Your task to perform on an android device: Open calendar and show me the third week of next month Image 0: 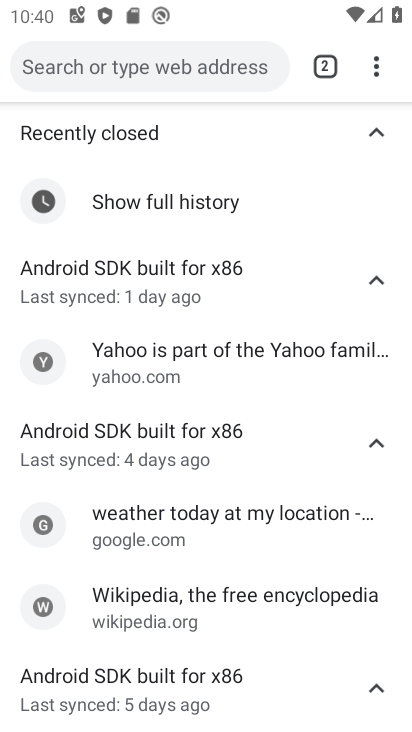
Step 0: press home button
Your task to perform on an android device: Open calendar and show me the third week of next month Image 1: 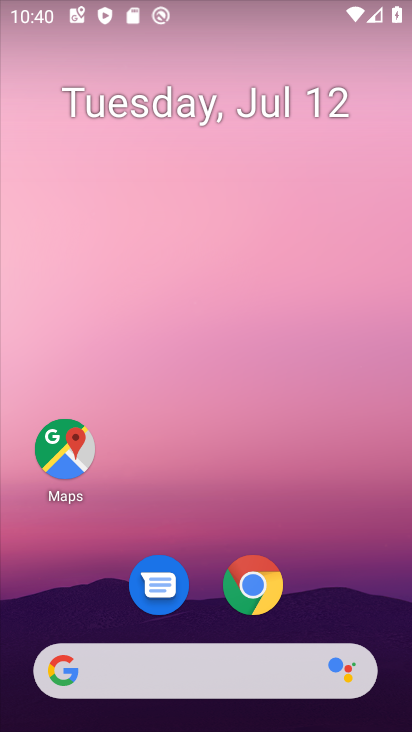
Step 1: drag from (311, 579) to (337, 0)
Your task to perform on an android device: Open calendar and show me the third week of next month Image 2: 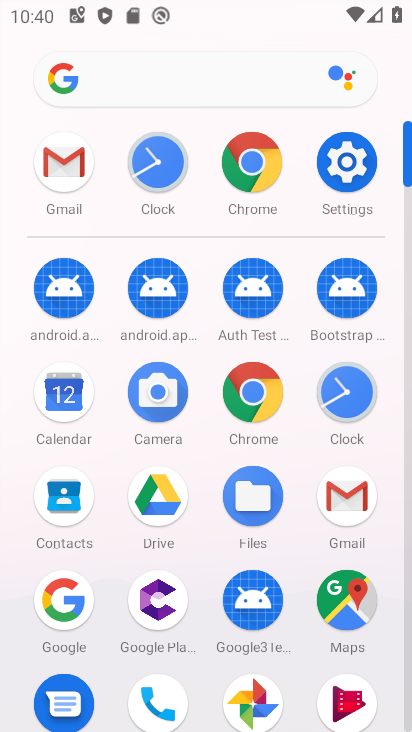
Step 2: click (67, 396)
Your task to perform on an android device: Open calendar and show me the third week of next month Image 3: 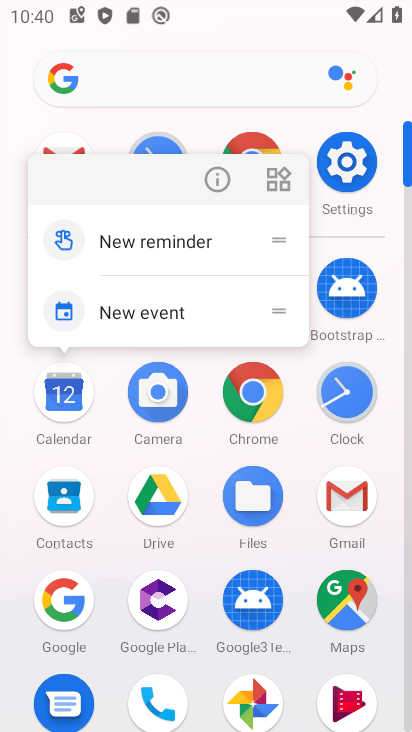
Step 3: click (67, 391)
Your task to perform on an android device: Open calendar and show me the third week of next month Image 4: 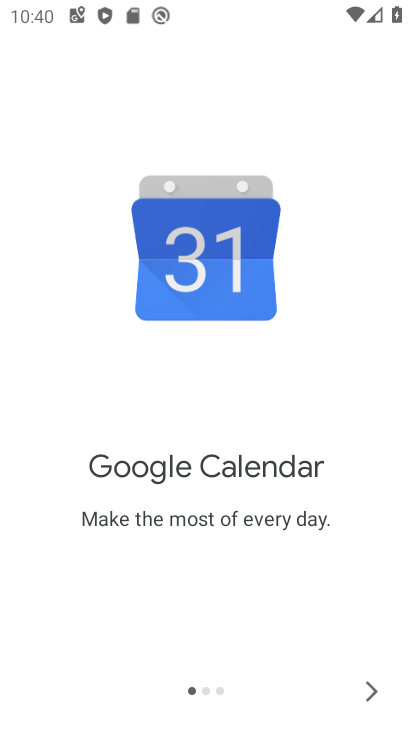
Step 4: click (370, 687)
Your task to perform on an android device: Open calendar and show me the third week of next month Image 5: 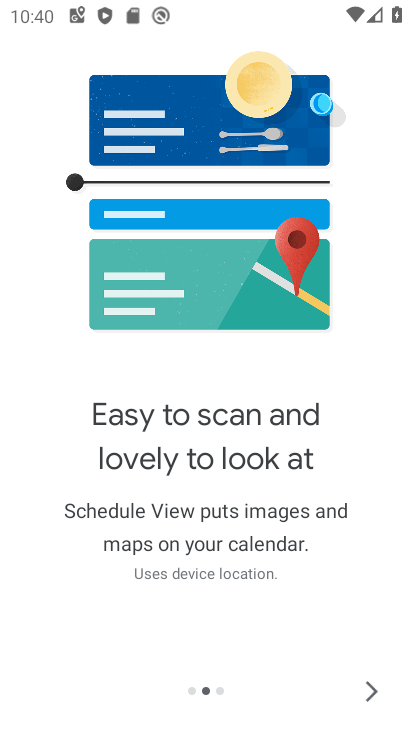
Step 5: click (370, 687)
Your task to perform on an android device: Open calendar and show me the third week of next month Image 6: 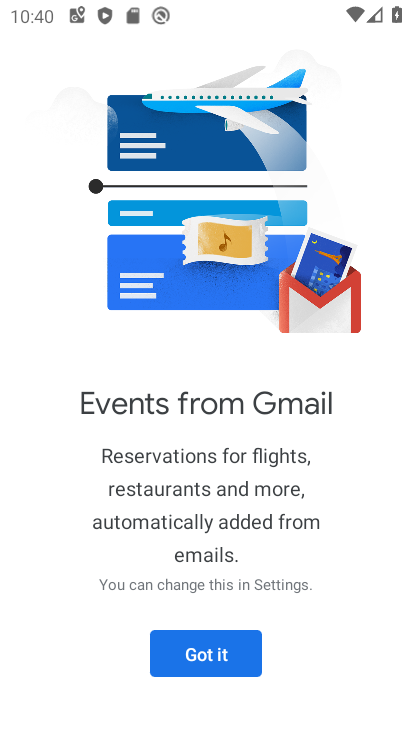
Step 6: click (256, 657)
Your task to perform on an android device: Open calendar and show me the third week of next month Image 7: 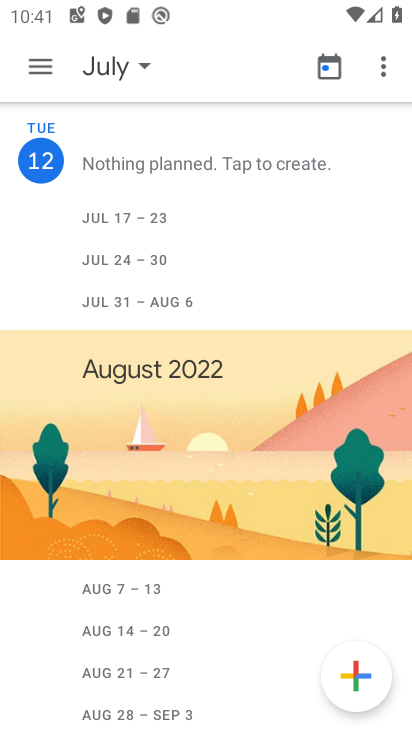
Step 7: click (46, 69)
Your task to perform on an android device: Open calendar and show me the third week of next month Image 8: 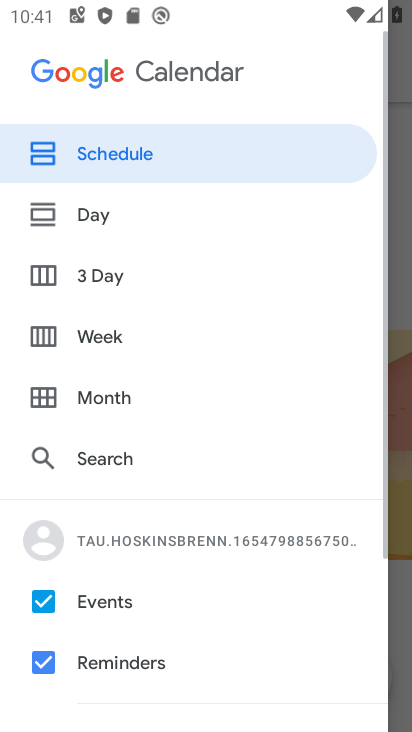
Step 8: click (42, 388)
Your task to perform on an android device: Open calendar and show me the third week of next month Image 9: 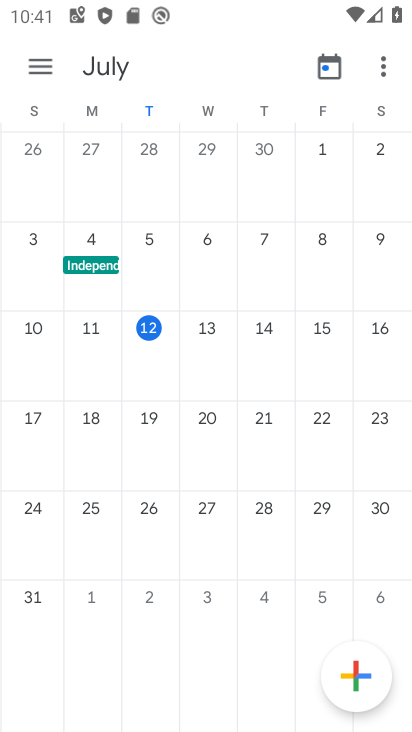
Step 9: drag from (347, 371) to (2, 407)
Your task to perform on an android device: Open calendar and show me the third week of next month Image 10: 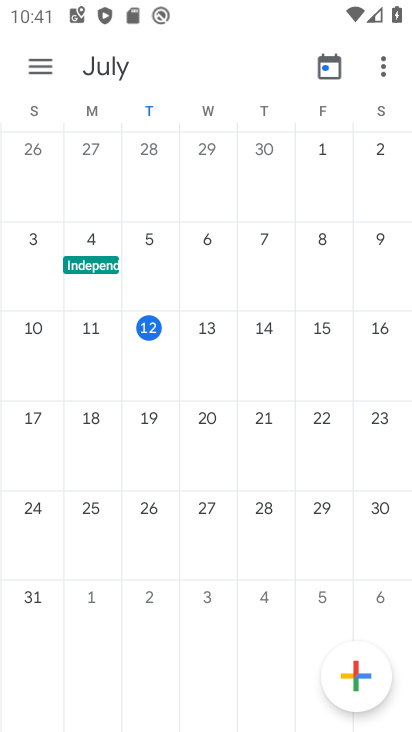
Step 10: drag from (371, 448) to (10, 426)
Your task to perform on an android device: Open calendar and show me the third week of next month Image 11: 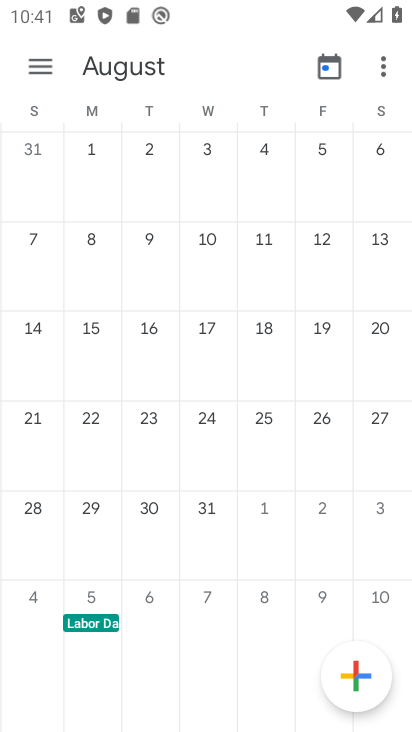
Step 11: click (35, 413)
Your task to perform on an android device: Open calendar and show me the third week of next month Image 12: 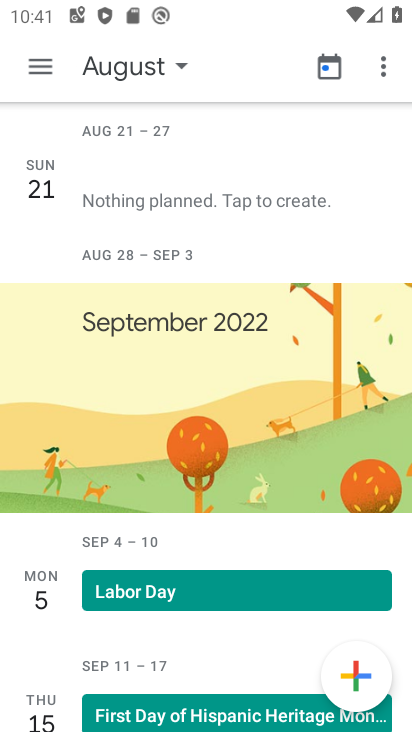
Step 12: click (36, 61)
Your task to perform on an android device: Open calendar and show me the third week of next month Image 13: 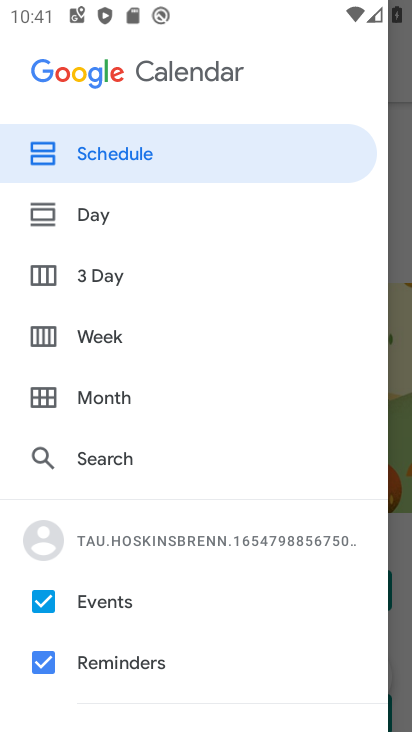
Step 13: click (42, 332)
Your task to perform on an android device: Open calendar and show me the third week of next month Image 14: 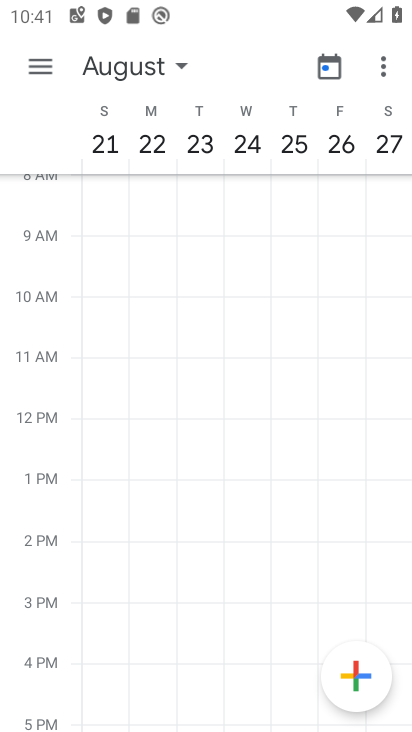
Step 14: task complete